Your task to perform on an android device: open a bookmark in the chrome app Image 0: 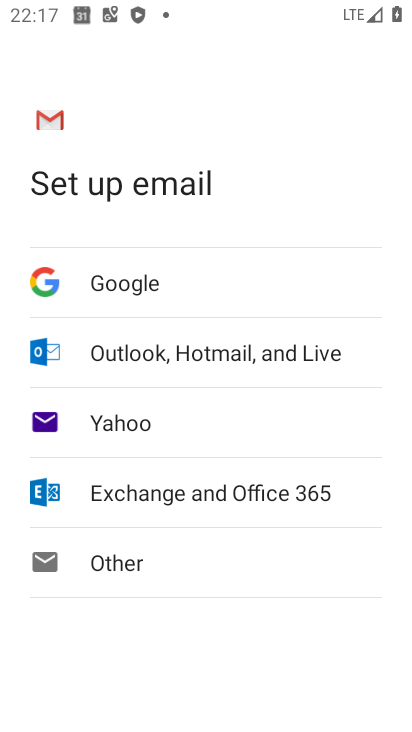
Step 0: press home button
Your task to perform on an android device: open a bookmark in the chrome app Image 1: 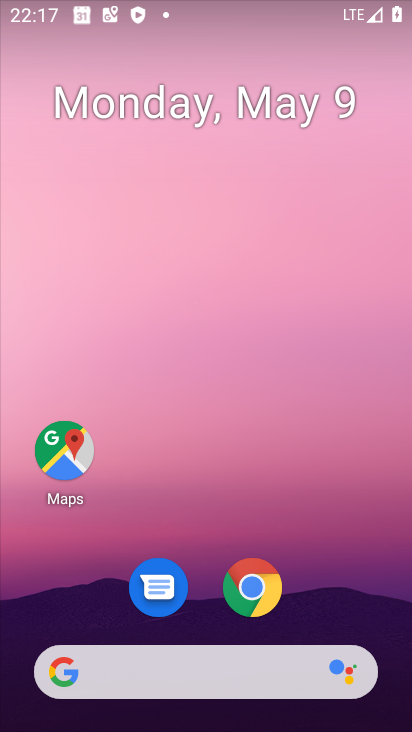
Step 1: click (258, 592)
Your task to perform on an android device: open a bookmark in the chrome app Image 2: 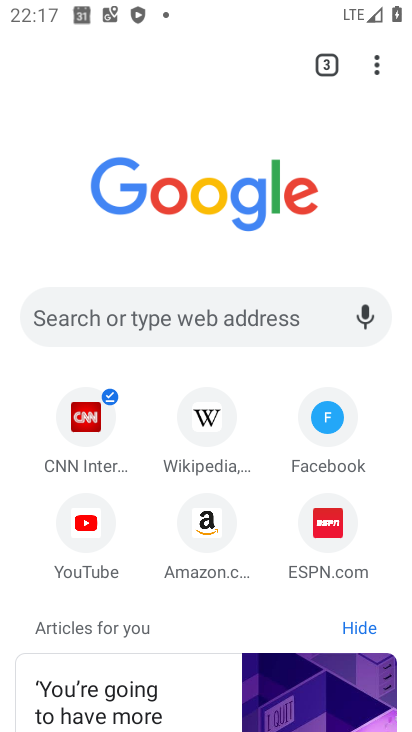
Step 2: click (373, 61)
Your task to perform on an android device: open a bookmark in the chrome app Image 3: 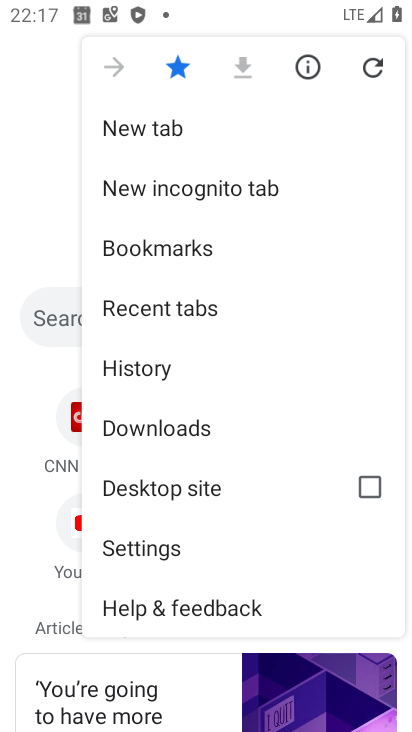
Step 3: click (207, 236)
Your task to perform on an android device: open a bookmark in the chrome app Image 4: 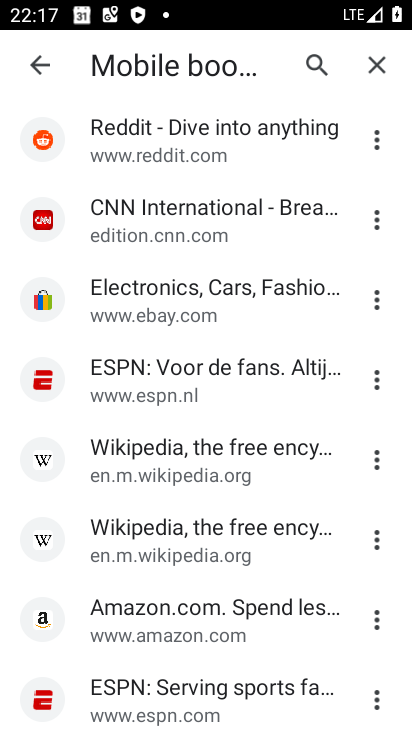
Step 4: click (155, 403)
Your task to perform on an android device: open a bookmark in the chrome app Image 5: 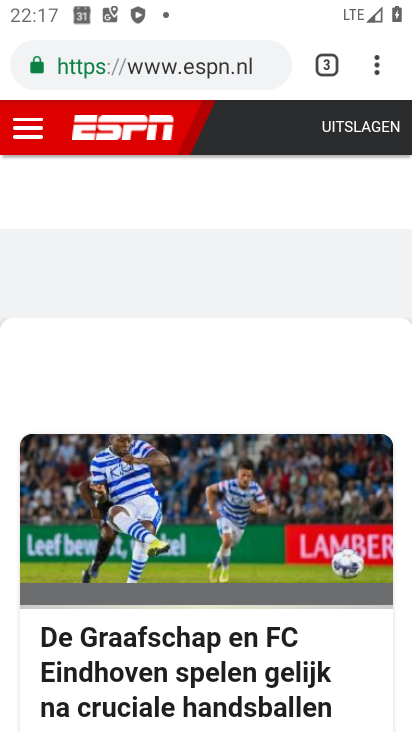
Step 5: task complete